Your task to perform on an android device: clear all cookies in the chrome app Image 0: 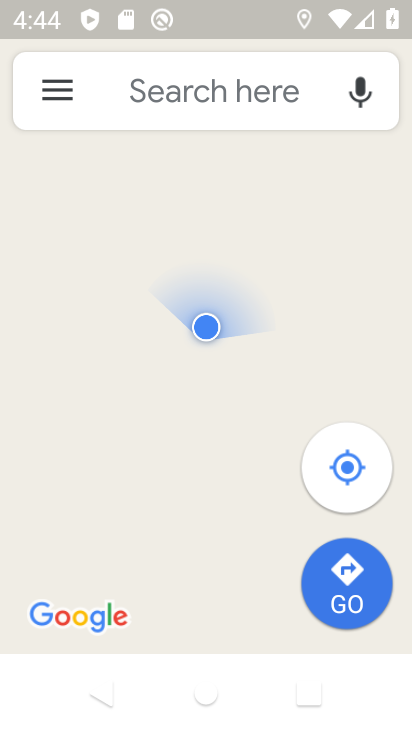
Step 0: press back button
Your task to perform on an android device: clear all cookies in the chrome app Image 1: 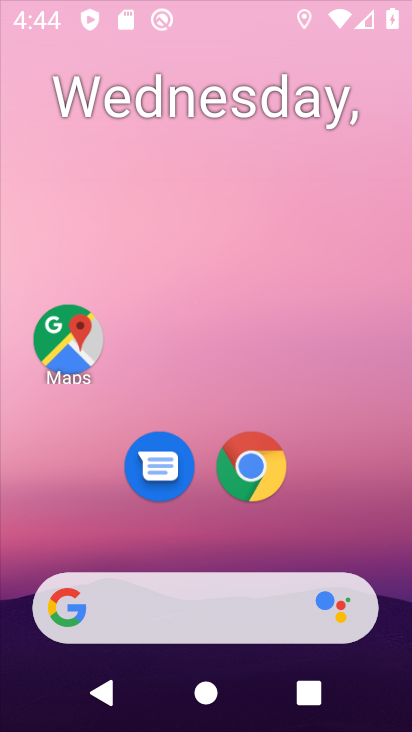
Step 1: press home button
Your task to perform on an android device: clear all cookies in the chrome app Image 2: 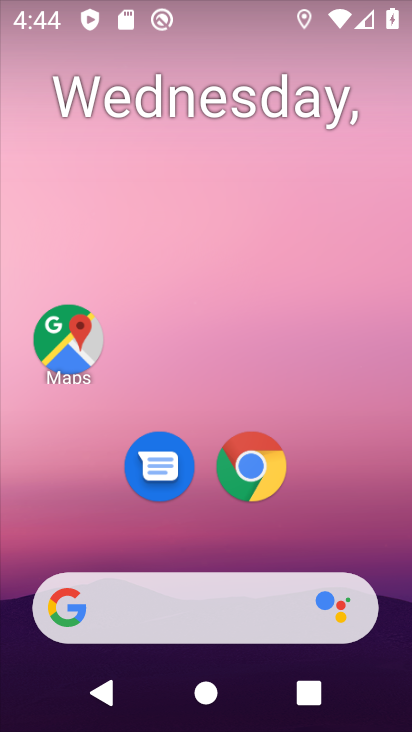
Step 2: drag from (325, 493) to (261, 12)
Your task to perform on an android device: clear all cookies in the chrome app Image 3: 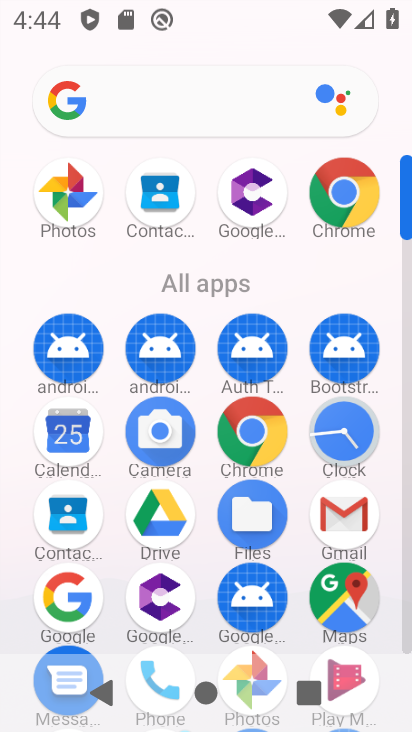
Step 3: drag from (15, 525) to (28, 196)
Your task to perform on an android device: clear all cookies in the chrome app Image 4: 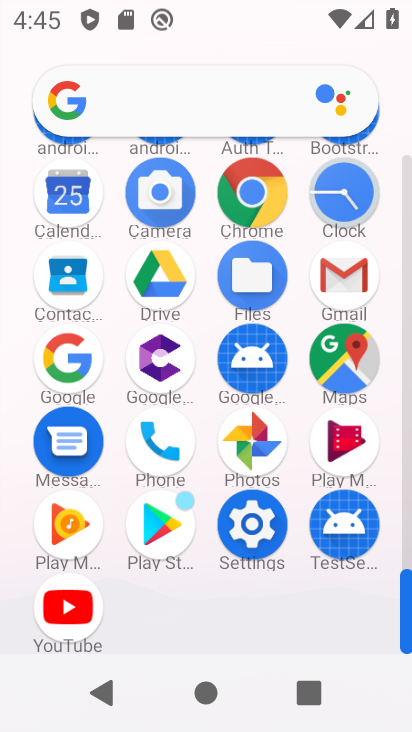
Step 4: click (244, 191)
Your task to perform on an android device: clear all cookies in the chrome app Image 5: 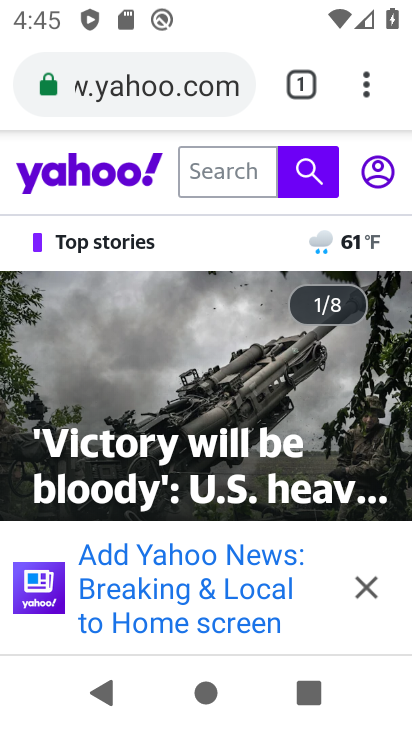
Step 5: drag from (366, 83) to (162, 513)
Your task to perform on an android device: clear all cookies in the chrome app Image 6: 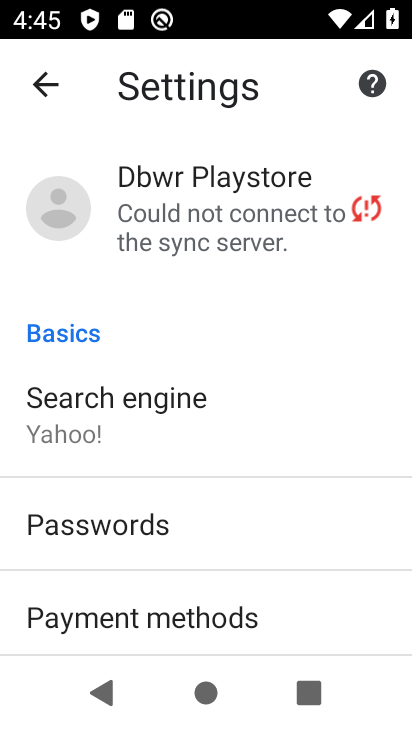
Step 6: drag from (248, 570) to (248, 169)
Your task to perform on an android device: clear all cookies in the chrome app Image 7: 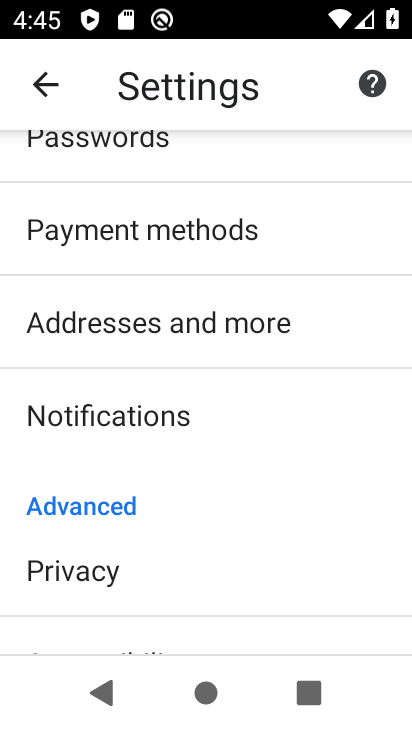
Step 7: drag from (243, 564) to (246, 228)
Your task to perform on an android device: clear all cookies in the chrome app Image 8: 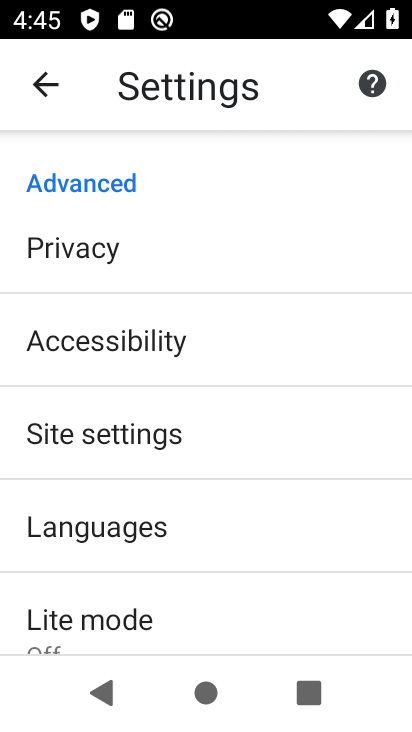
Step 8: click (160, 254)
Your task to perform on an android device: clear all cookies in the chrome app Image 9: 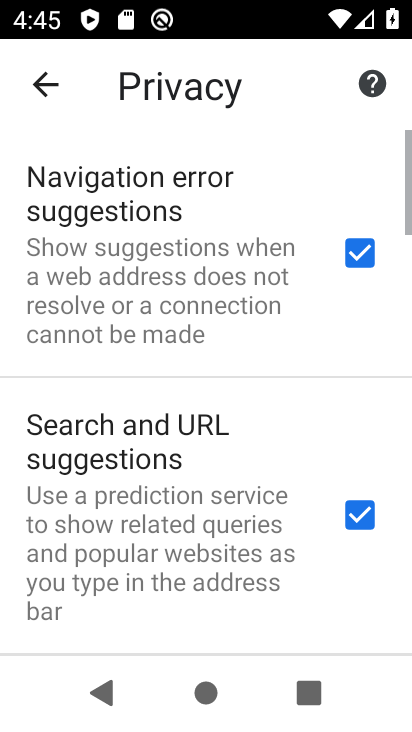
Step 9: drag from (206, 539) to (232, 139)
Your task to perform on an android device: clear all cookies in the chrome app Image 10: 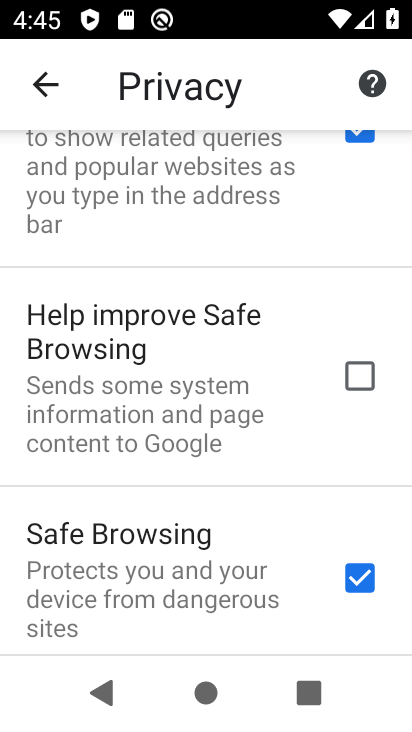
Step 10: drag from (227, 554) to (226, 106)
Your task to perform on an android device: clear all cookies in the chrome app Image 11: 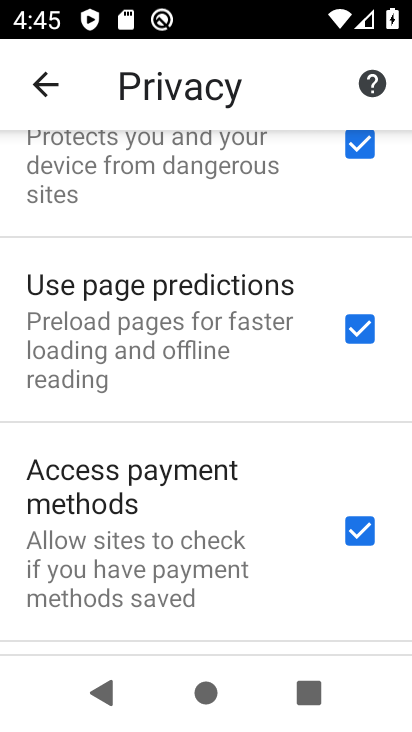
Step 11: drag from (208, 577) to (235, 169)
Your task to perform on an android device: clear all cookies in the chrome app Image 12: 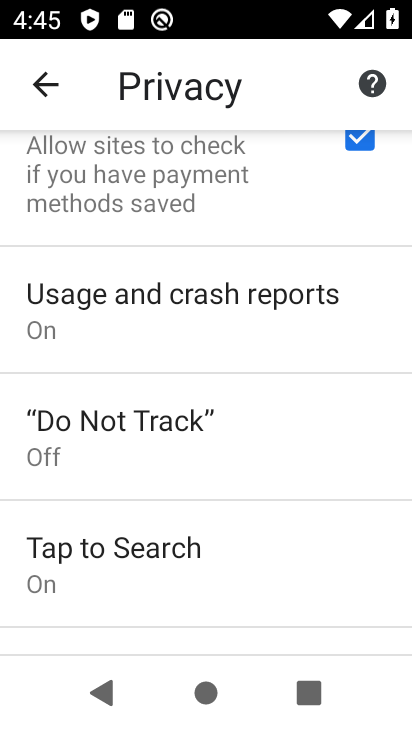
Step 12: drag from (182, 590) to (217, 159)
Your task to perform on an android device: clear all cookies in the chrome app Image 13: 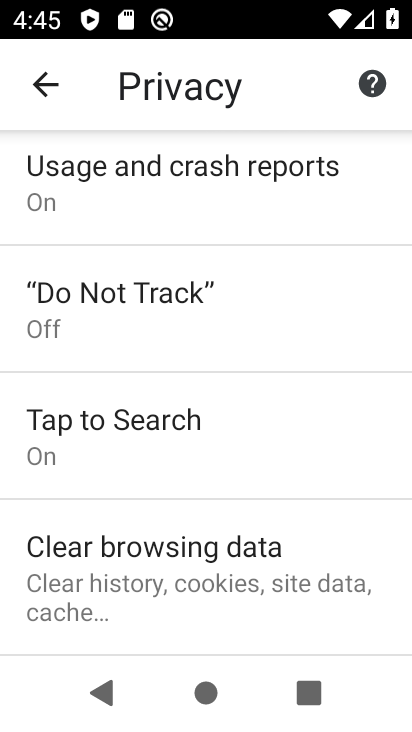
Step 13: click (218, 597)
Your task to perform on an android device: clear all cookies in the chrome app Image 14: 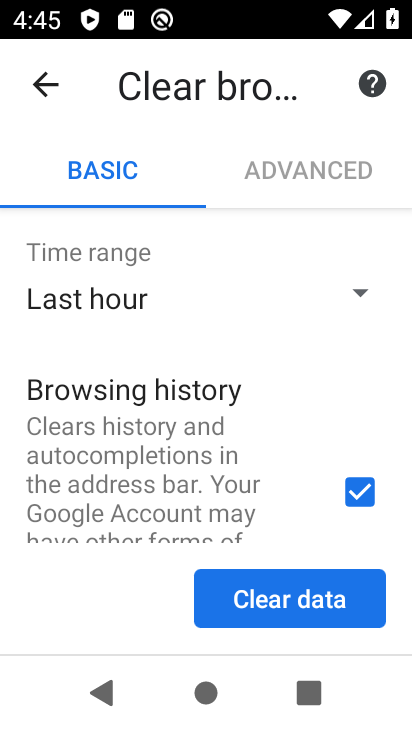
Step 14: drag from (200, 419) to (191, 235)
Your task to perform on an android device: clear all cookies in the chrome app Image 15: 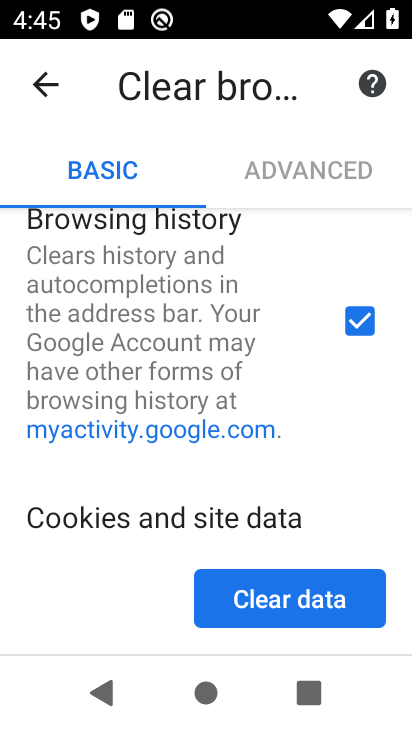
Step 15: click (356, 311)
Your task to perform on an android device: clear all cookies in the chrome app Image 16: 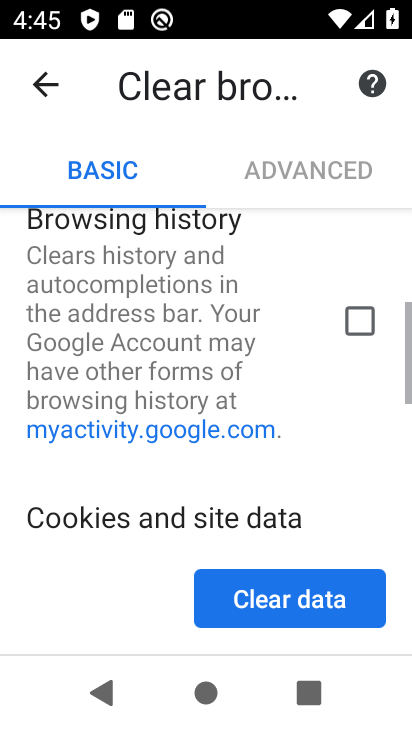
Step 16: drag from (225, 490) to (261, 262)
Your task to perform on an android device: clear all cookies in the chrome app Image 17: 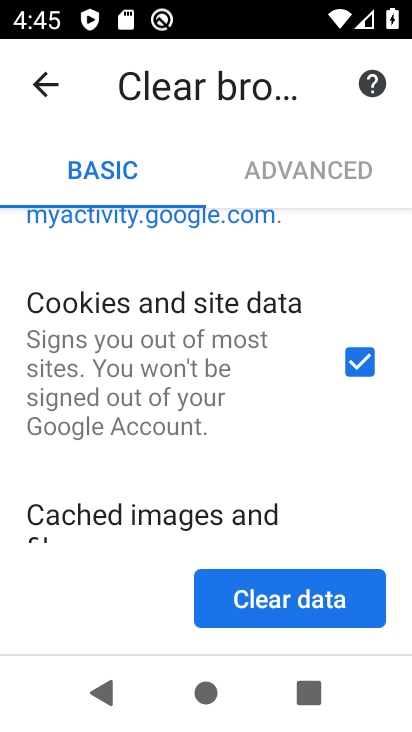
Step 17: drag from (307, 476) to (283, 251)
Your task to perform on an android device: clear all cookies in the chrome app Image 18: 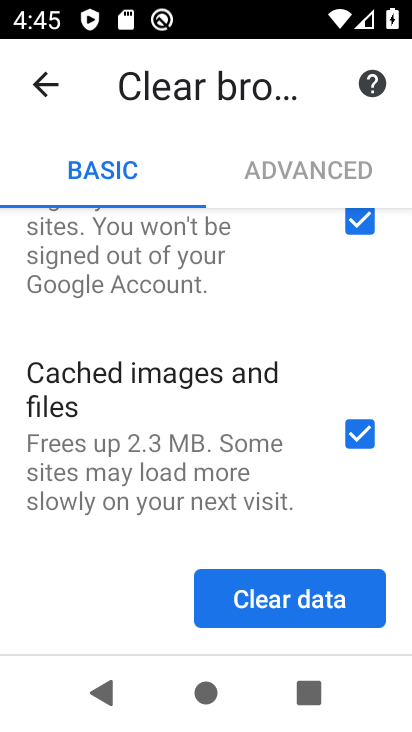
Step 18: click (365, 436)
Your task to perform on an android device: clear all cookies in the chrome app Image 19: 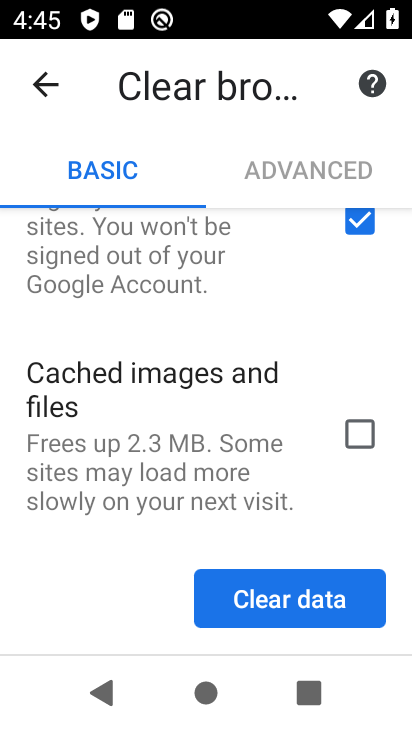
Step 19: drag from (297, 363) to (271, 510)
Your task to perform on an android device: clear all cookies in the chrome app Image 20: 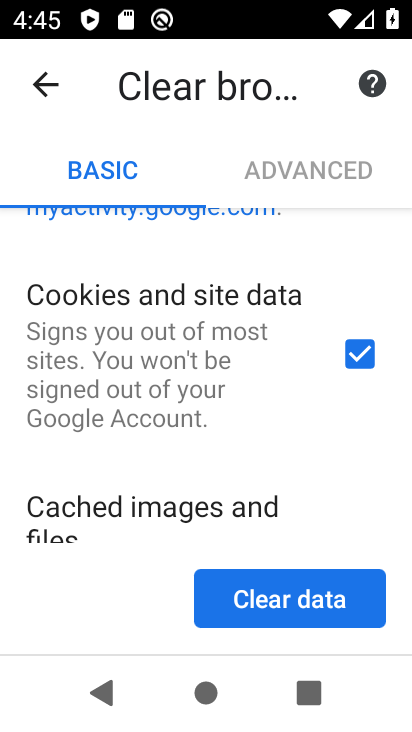
Step 20: click (262, 573)
Your task to perform on an android device: clear all cookies in the chrome app Image 21: 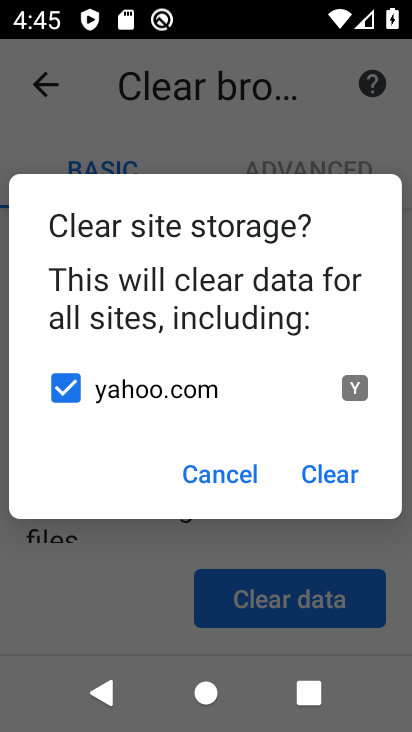
Step 21: click (323, 473)
Your task to perform on an android device: clear all cookies in the chrome app Image 22: 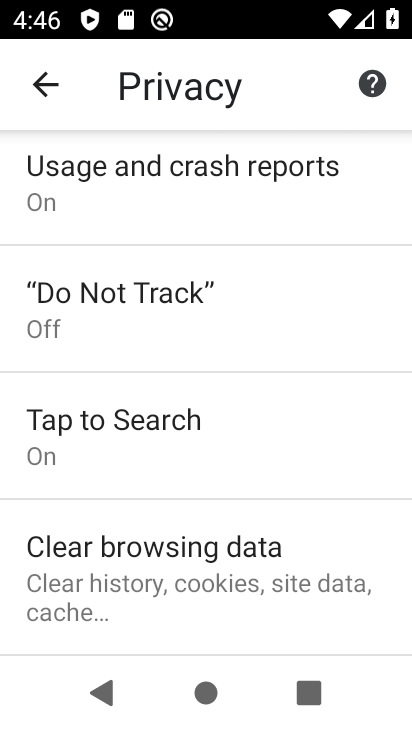
Step 22: task complete